Your task to perform on an android device: Go to accessibility settings Image 0: 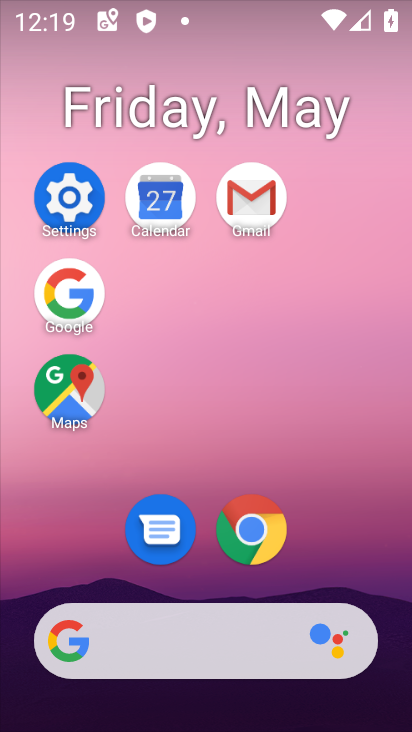
Step 0: click (59, 182)
Your task to perform on an android device: Go to accessibility settings Image 1: 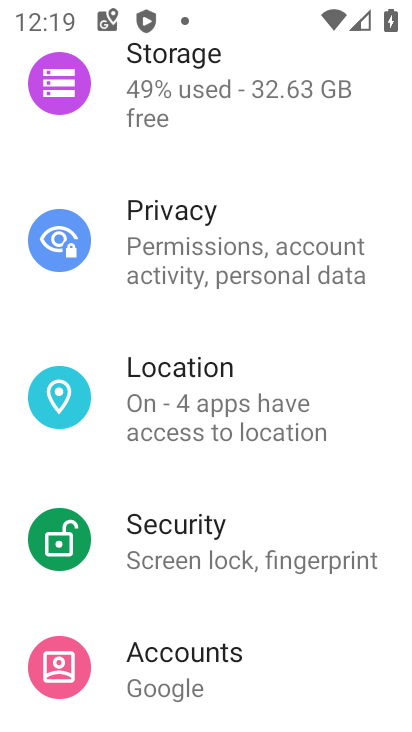
Step 1: drag from (335, 618) to (326, 206)
Your task to perform on an android device: Go to accessibility settings Image 2: 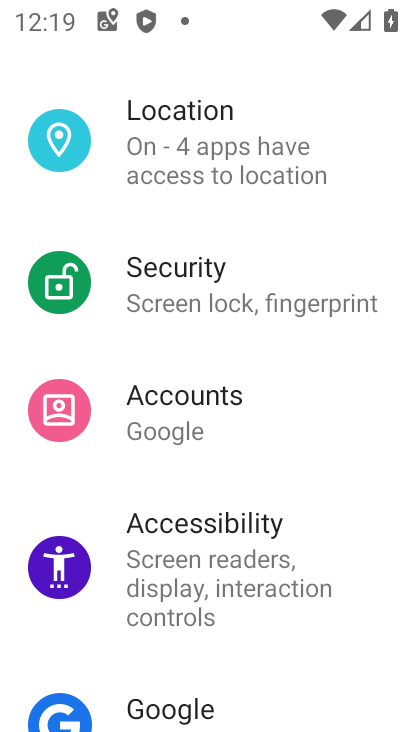
Step 2: click (263, 530)
Your task to perform on an android device: Go to accessibility settings Image 3: 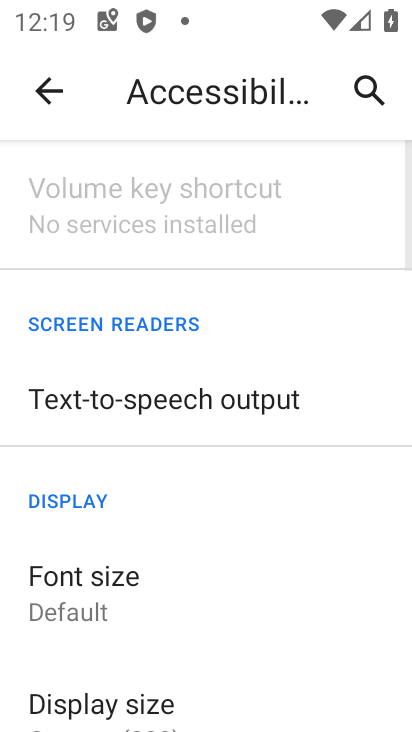
Step 3: task complete